Your task to perform on an android device: Open ESPN.com Image 0: 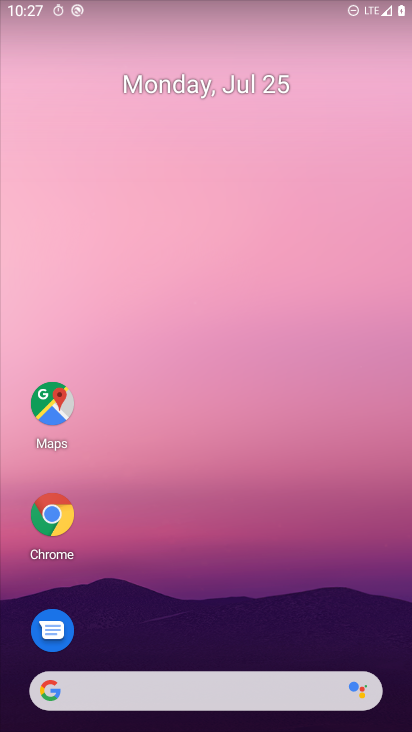
Step 0: click (136, 697)
Your task to perform on an android device: Open ESPN.com Image 1: 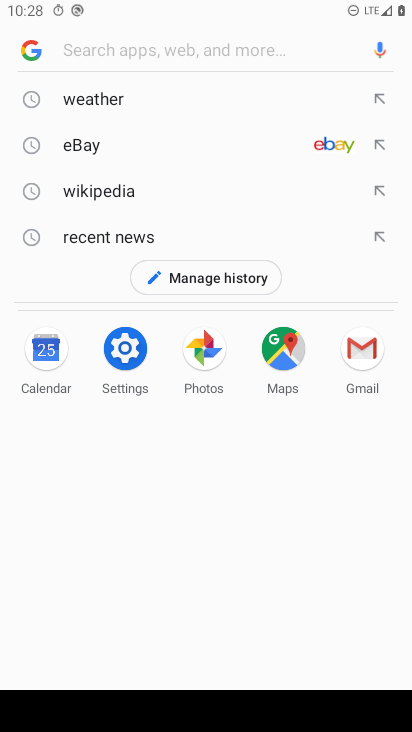
Step 1: type "ESPN.com"
Your task to perform on an android device: Open ESPN.com Image 2: 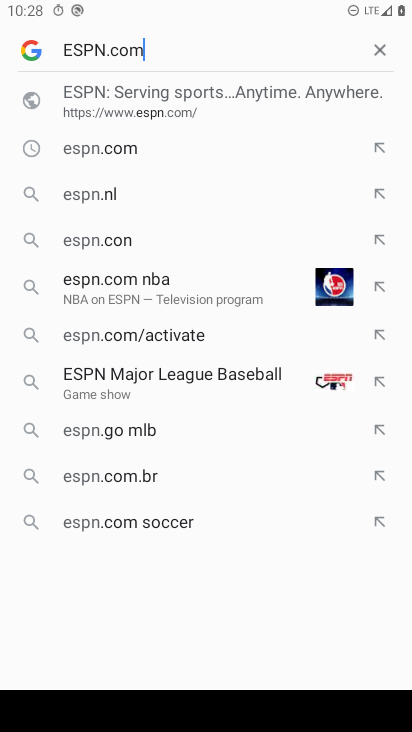
Step 2: type ""
Your task to perform on an android device: Open ESPN.com Image 3: 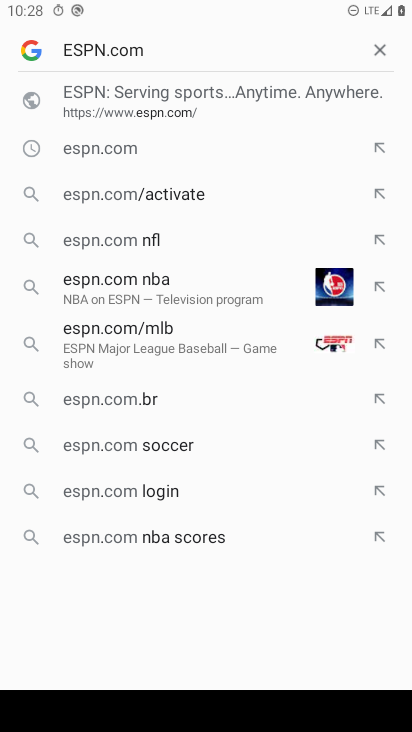
Step 3: type ""
Your task to perform on an android device: Open ESPN.com Image 4: 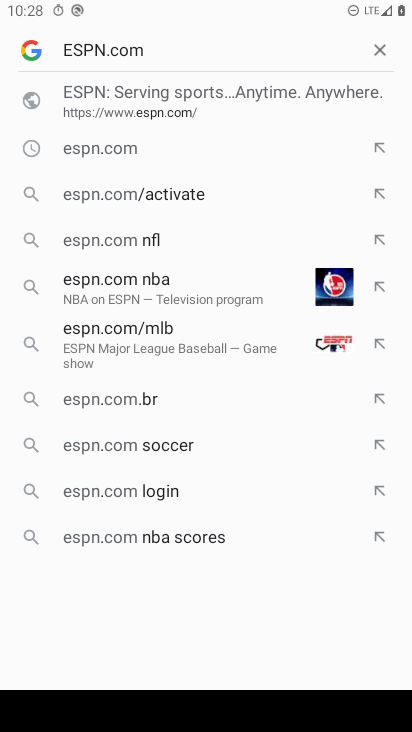
Step 4: type ""
Your task to perform on an android device: Open ESPN.com Image 5: 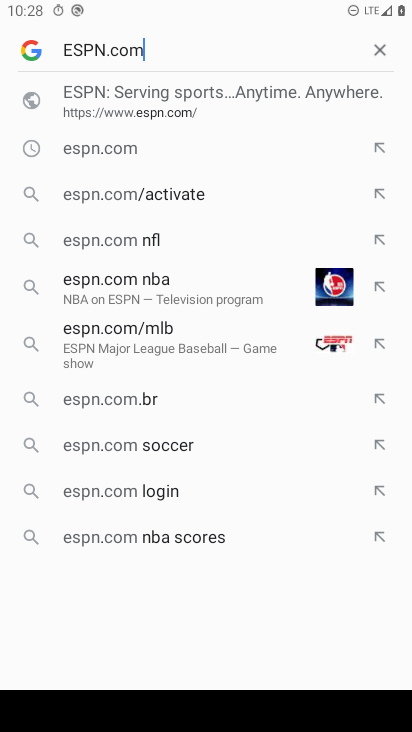
Step 5: task complete